Your task to perform on an android device: Open the web browser Image 0: 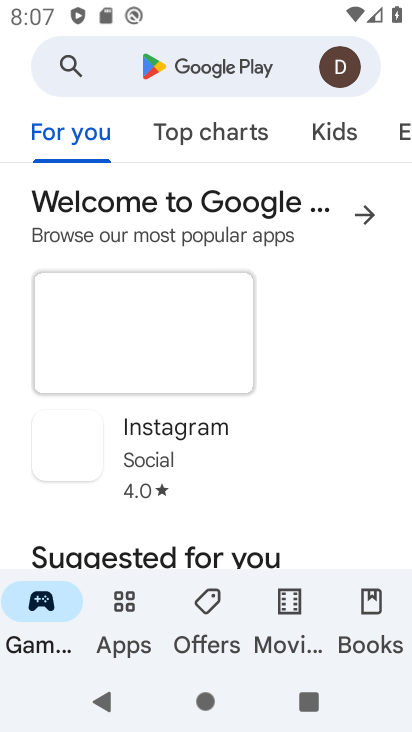
Step 0: press home button
Your task to perform on an android device: Open the web browser Image 1: 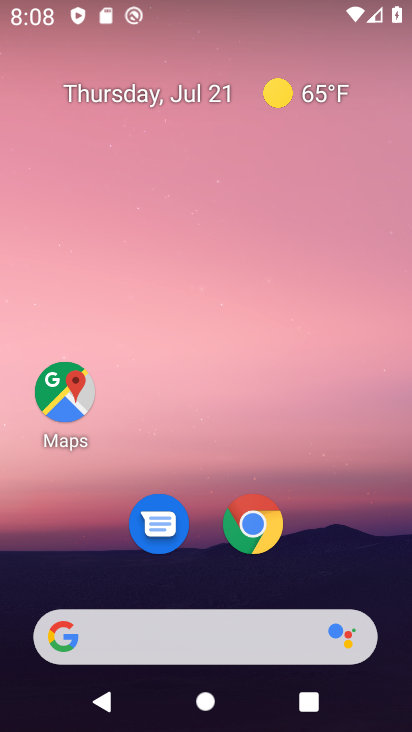
Step 1: click (266, 525)
Your task to perform on an android device: Open the web browser Image 2: 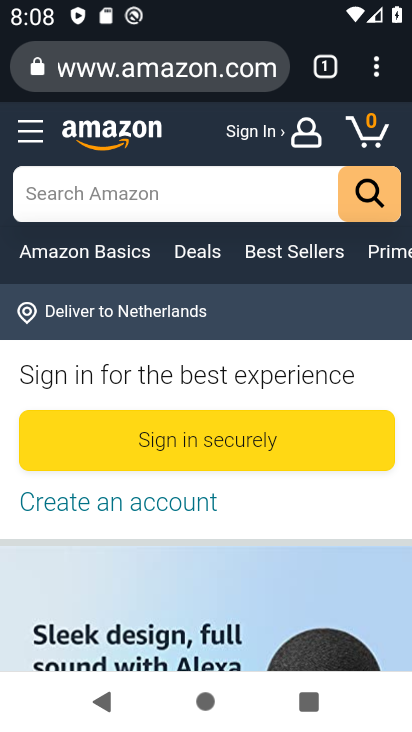
Step 2: task complete